Your task to perform on an android device: open a new tab in the chrome app Image 0: 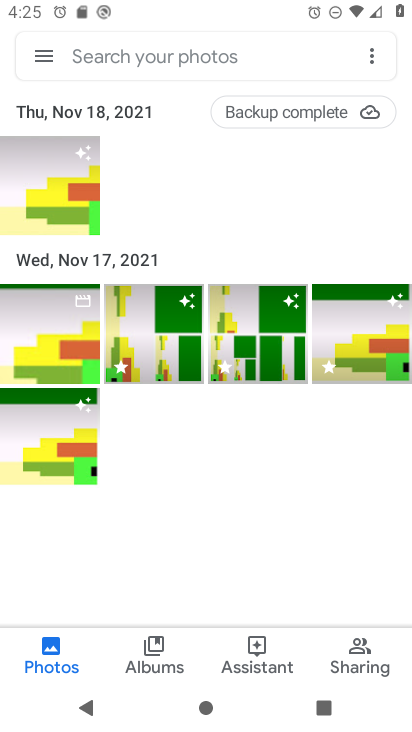
Step 0: press home button
Your task to perform on an android device: open a new tab in the chrome app Image 1: 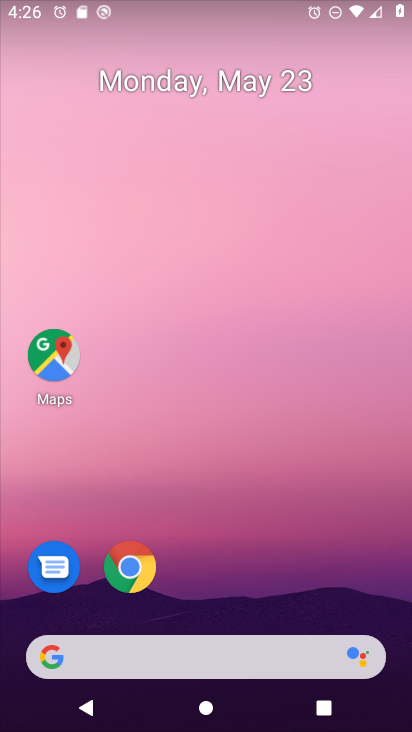
Step 1: click (131, 567)
Your task to perform on an android device: open a new tab in the chrome app Image 2: 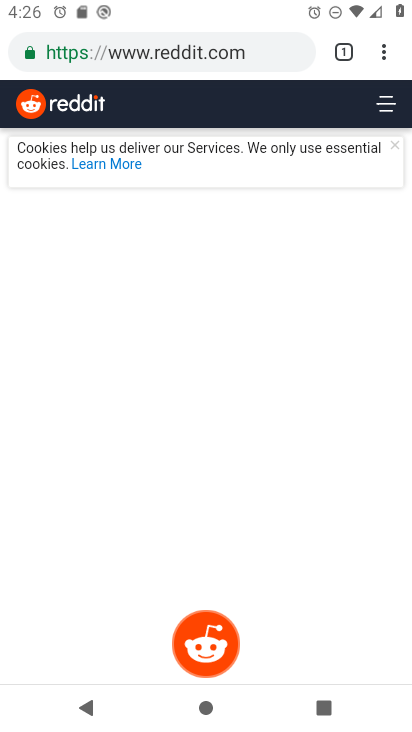
Step 2: click (380, 54)
Your task to perform on an android device: open a new tab in the chrome app Image 3: 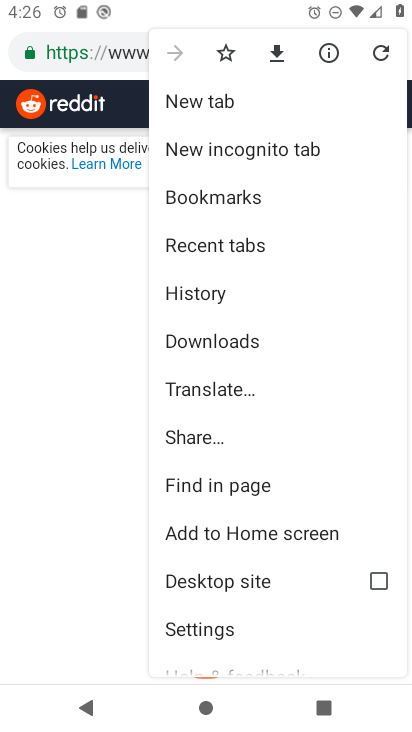
Step 3: click (196, 102)
Your task to perform on an android device: open a new tab in the chrome app Image 4: 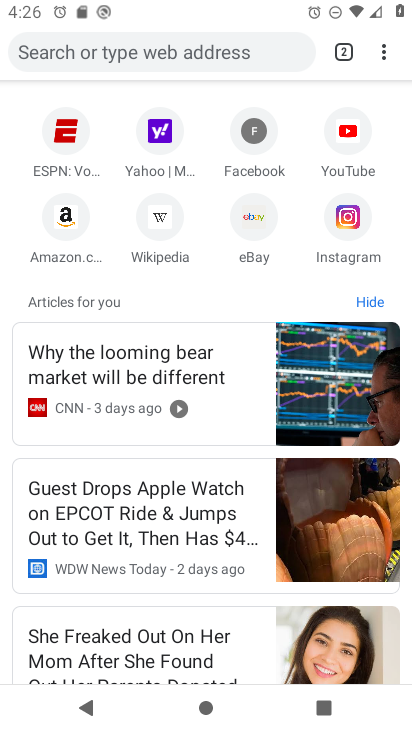
Step 4: task complete